Your task to perform on an android device: View the shopping cart on bestbuy.com. Search for razer blackwidow on bestbuy.com, select the first entry, and add it to the cart. Image 0: 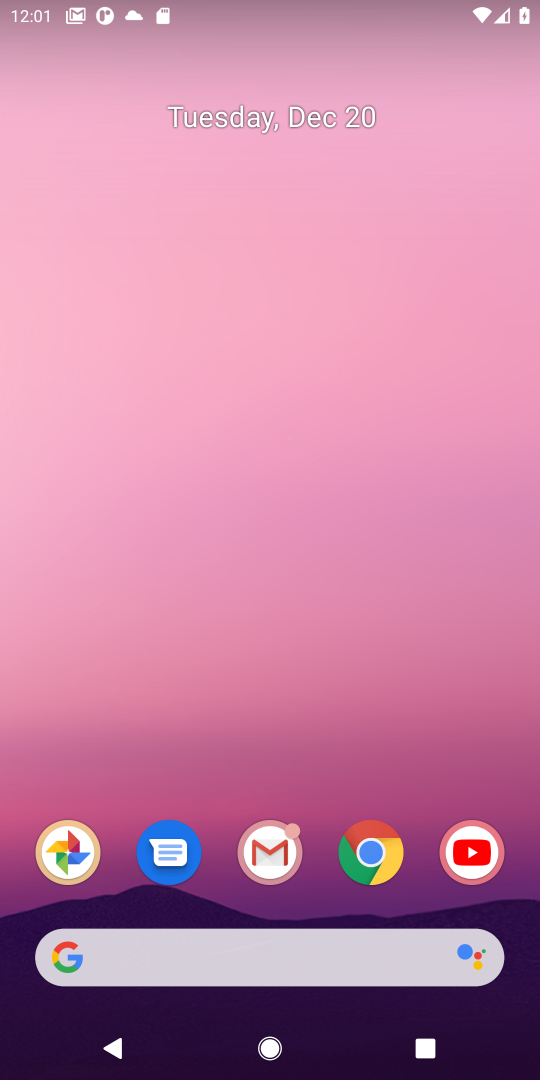
Step 0: click (381, 858)
Your task to perform on an android device: View the shopping cart on bestbuy.com. Search for razer blackwidow on bestbuy.com, select the first entry, and add it to the cart. Image 1: 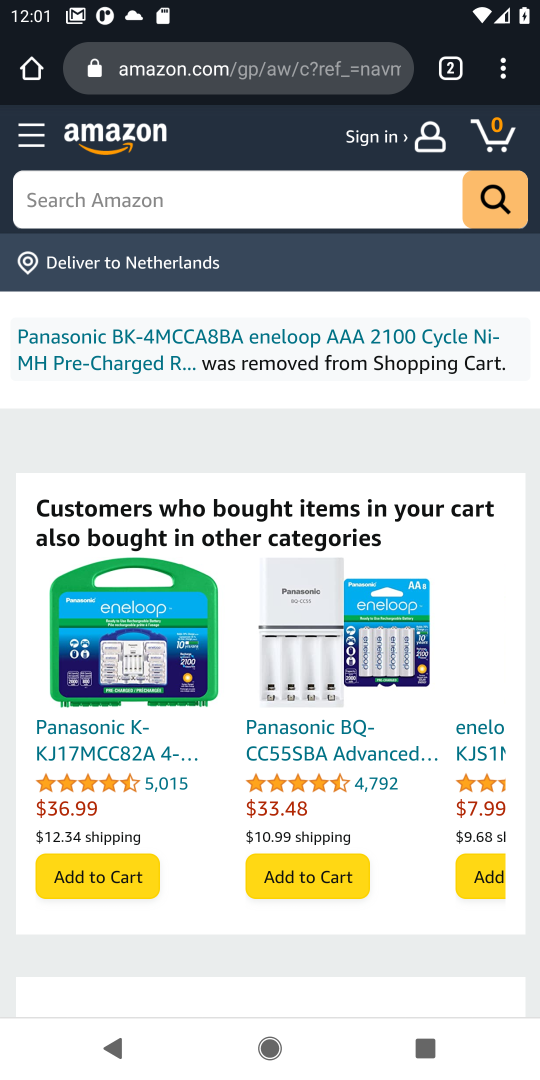
Step 1: click (229, 71)
Your task to perform on an android device: View the shopping cart on bestbuy.com. Search for razer blackwidow on bestbuy.com, select the first entry, and add it to the cart. Image 2: 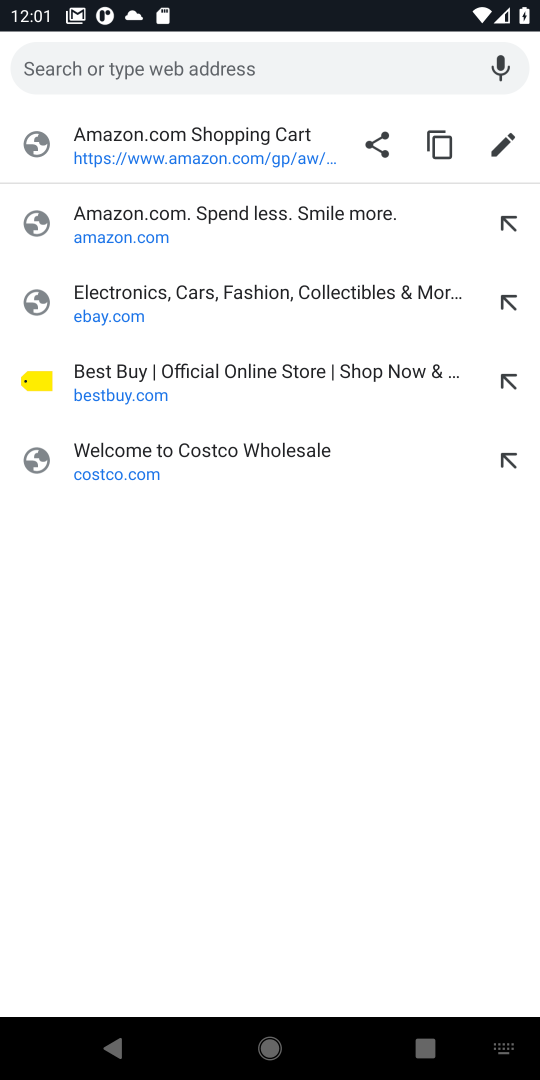
Step 2: click (111, 379)
Your task to perform on an android device: View the shopping cart on bestbuy.com. Search for razer blackwidow on bestbuy.com, select the first entry, and add it to the cart. Image 3: 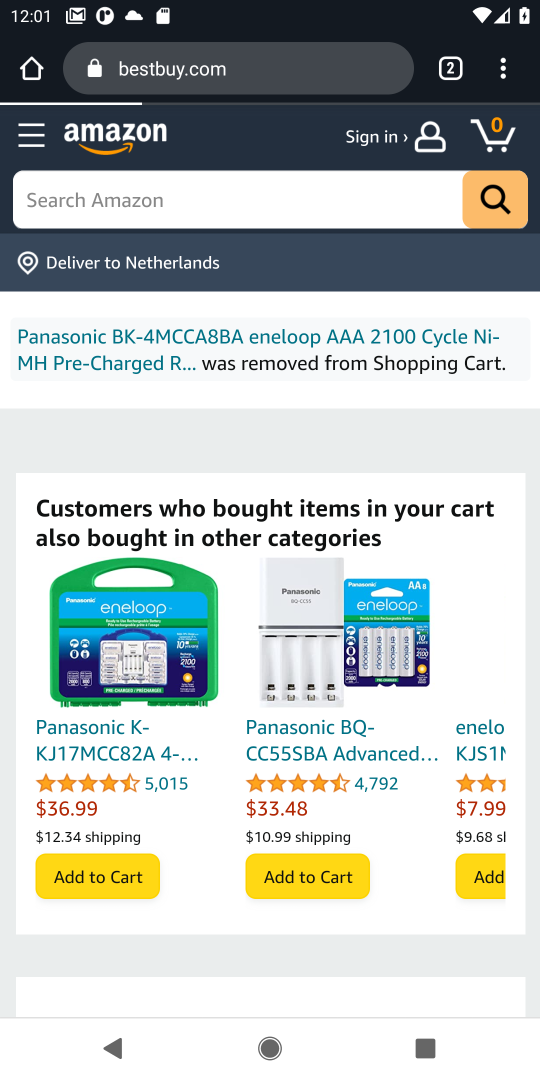
Step 3: click (497, 133)
Your task to perform on an android device: View the shopping cart on bestbuy.com. Search for razer blackwidow on bestbuy.com, select the first entry, and add it to the cart. Image 4: 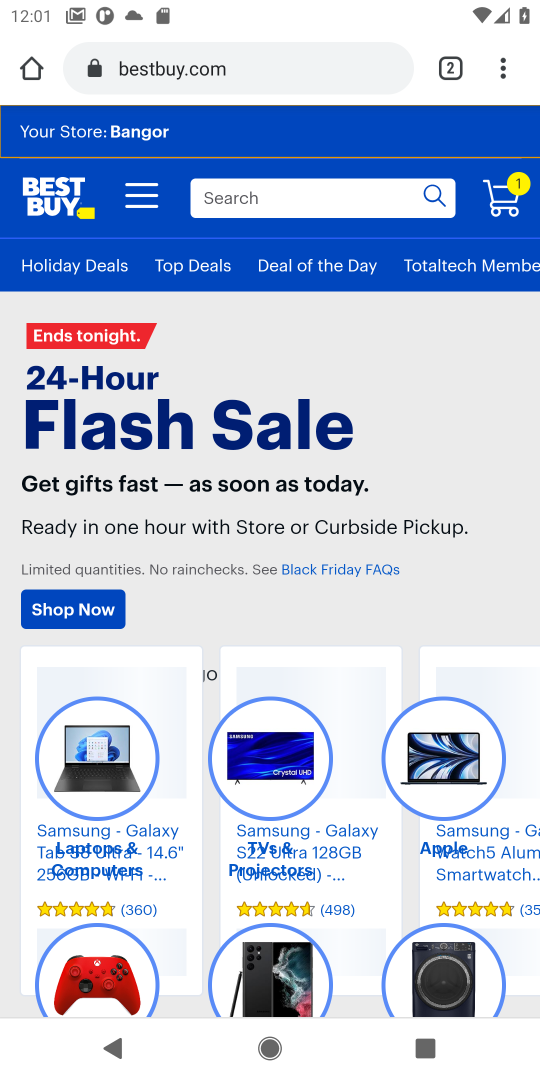
Step 4: click (502, 188)
Your task to perform on an android device: View the shopping cart on bestbuy.com. Search for razer blackwidow on bestbuy.com, select the first entry, and add it to the cart. Image 5: 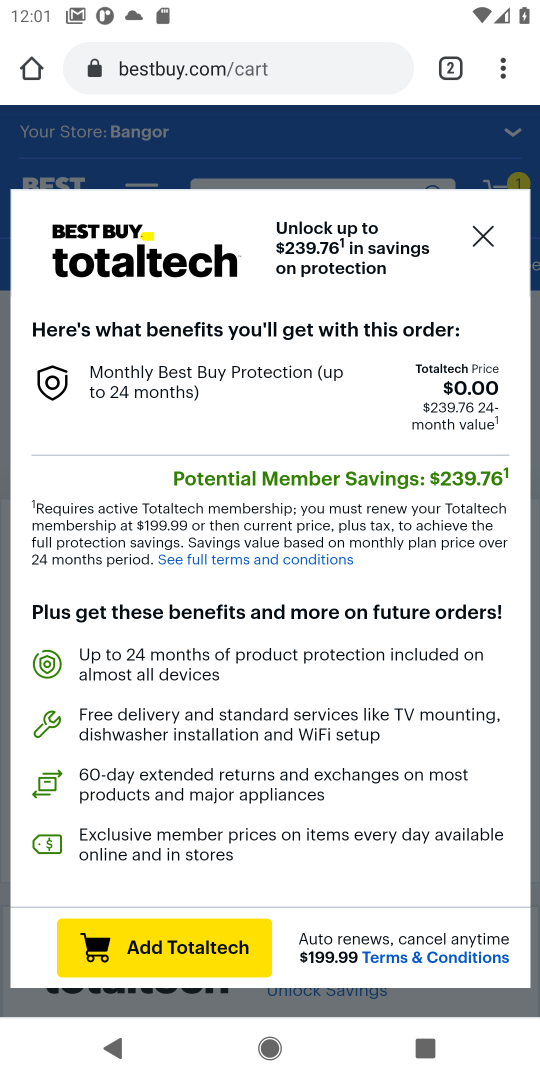
Step 5: click (483, 241)
Your task to perform on an android device: View the shopping cart on bestbuy.com. Search for razer blackwidow on bestbuy.com, select the first entry, and add it to the cart. Image 6: 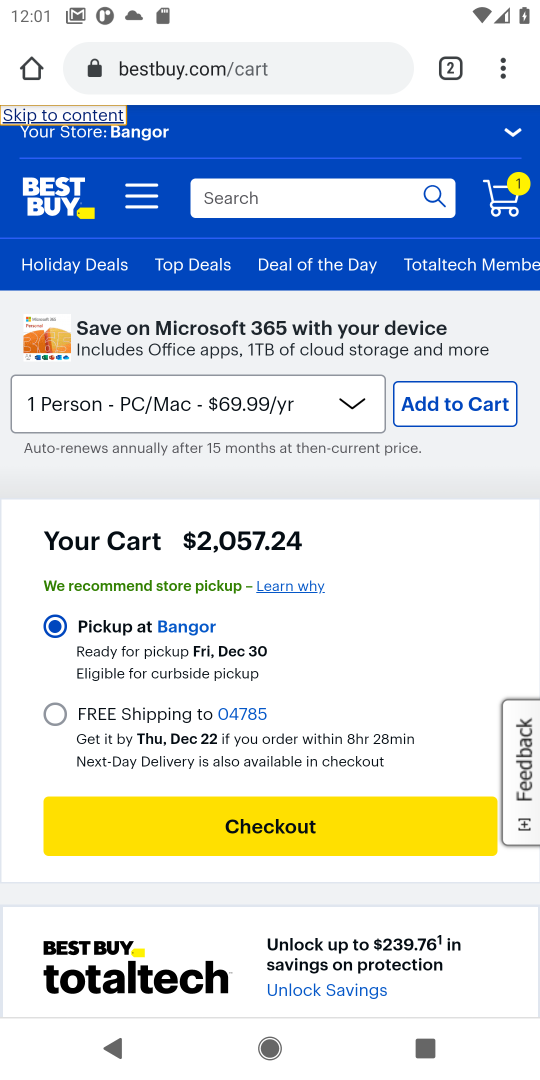
Step 6: click (234, 199)
Your task to perform on an android device: View the shopping cart on bestbuy.com. Search for razer blackwidow on bestbuy.com, select the first entry, and add it to the cart. Image 7: 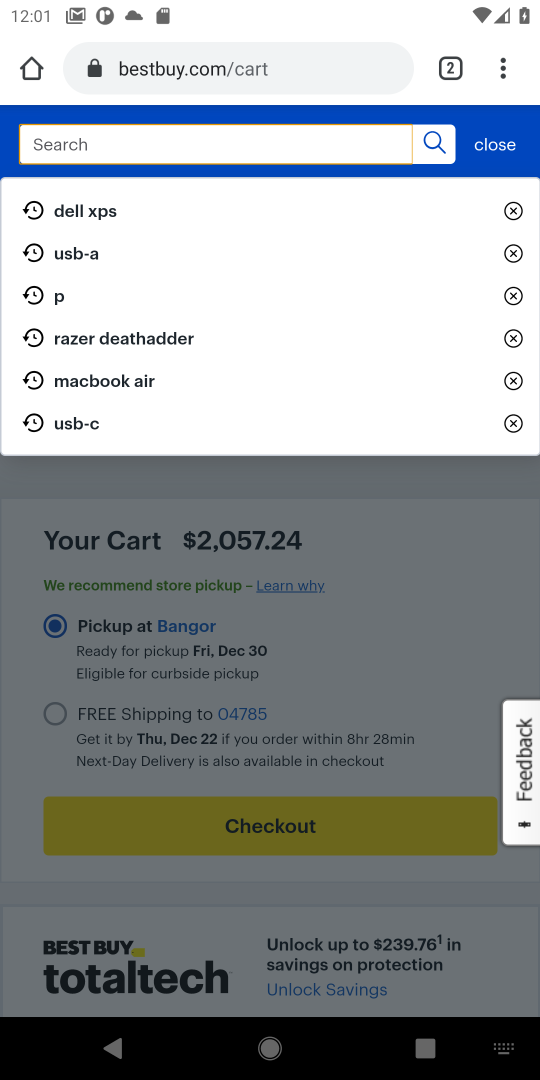
Step 7: type "razer blackwidow"
Your task to perform on an android device: View the shopping cart on bestbuy.com. Search for razer blackwidow on bestbuy.com, select the first entry, and add it to the cart. Image 8: 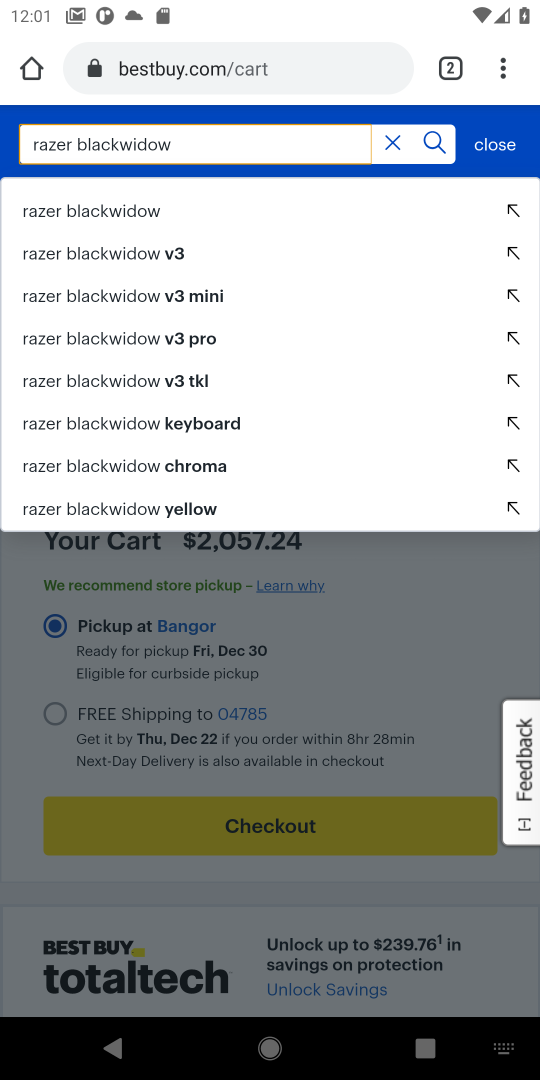
Step 8: click (80, 226)
Your task to perform on an android device: View the shopping cart on bestbuy.com. Search for razer blackwidow on bestbuy.com, select the first entry, and add it to the cart. Image 9: 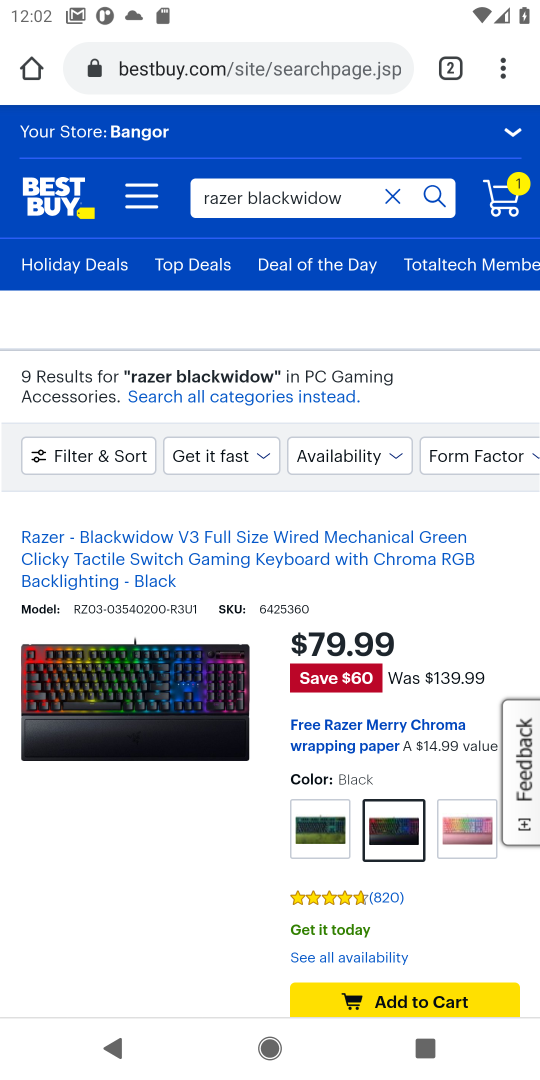
Step 9: drag from (215, 738) to (220, 517)
Your task to perform on an android device: View the shopping cart on bestbuy.com. Search for razer blackwidow on bestbuy.com, select the first entry, and add it to the cart. Image 10: 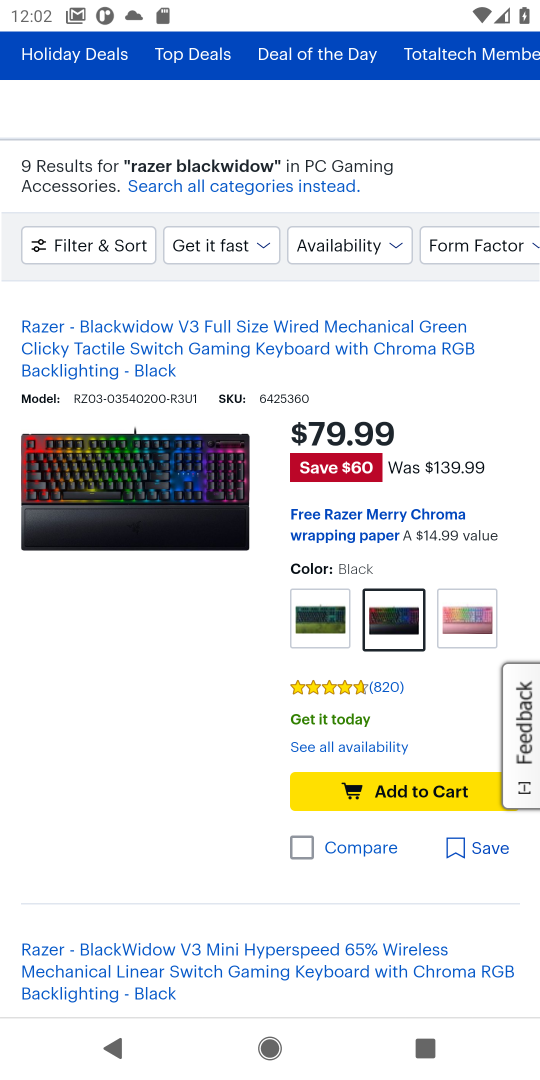
Step 10: click (393, 791)
Your task to perform on an android device: View the shopping cart on bestbuy.com. Search for razer blackwidow on bestbuy.com, select the first entry, and add it to the cart. Image 11: 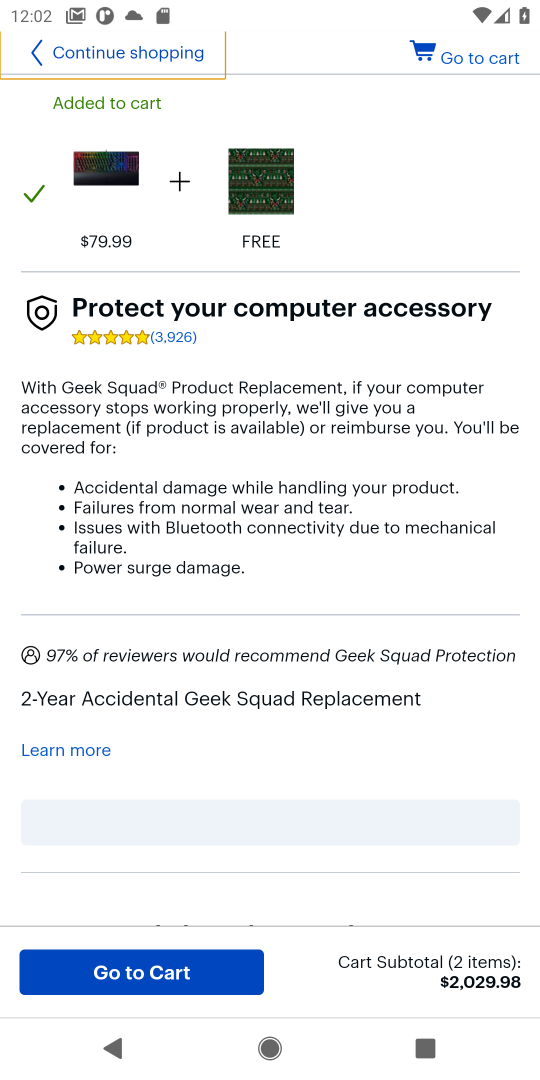
Step 11: task complete